Your task to perform on an android device: turn off location Image 0: 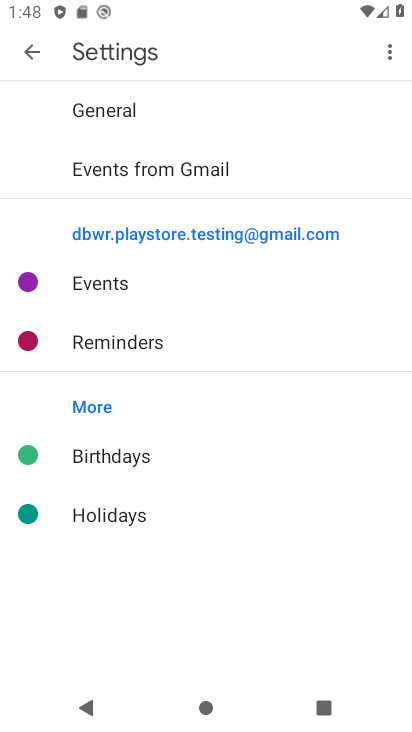
Step 0: press home button
Your task to perform on an android device: turn off location Image 1: 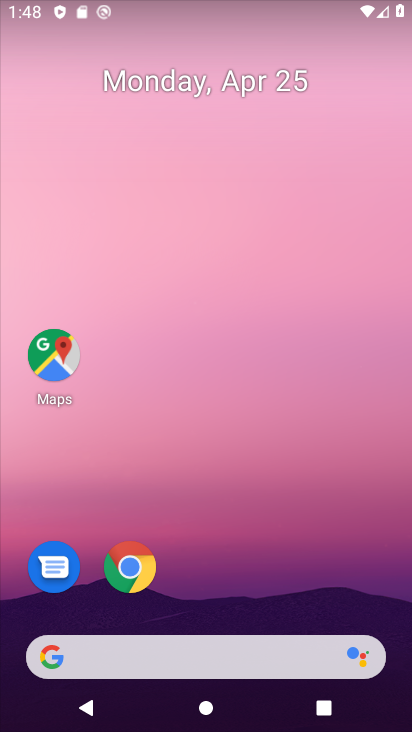
Step 1: drag from (226, 603) to (299, 135)
Your task to perform on an android device: turn off location Image 2: 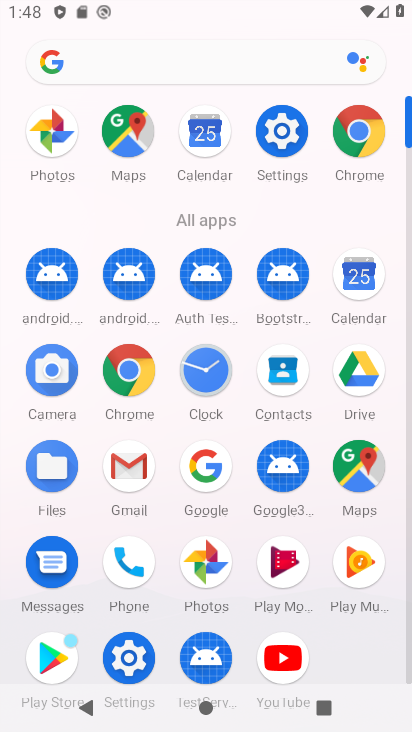
Step 2: click (300, 146)
Your task to perform on an android device: turn off location Image 3: 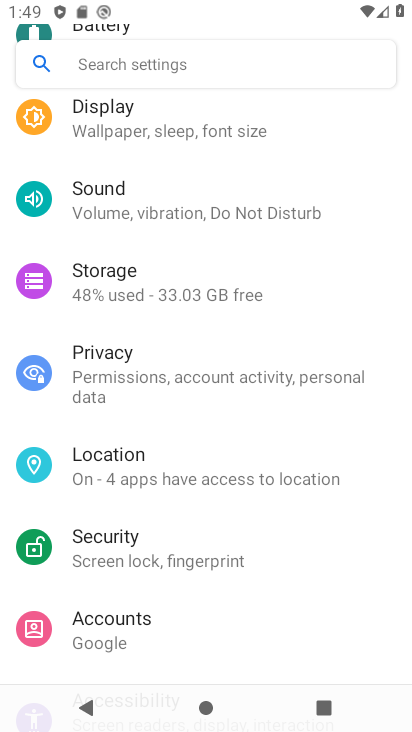
Step 3: click (199, 462)
Your task to perform on an android device: turn off location Image 4: 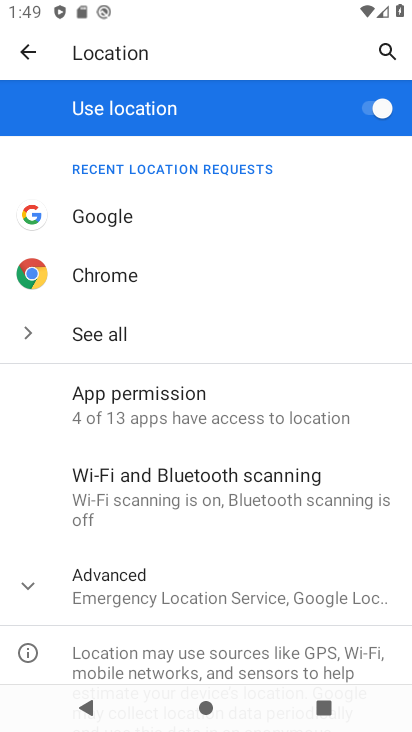
Step 4: click (359, 115)
Your task to perform on an android device: turn off location Image 5: 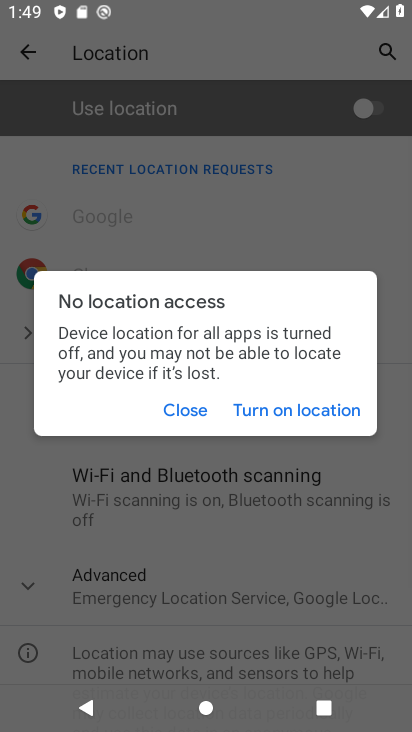
Step 5: task complete